Your task to perform on an android device: Search for seafood restaurants on Google Maps Image 0: 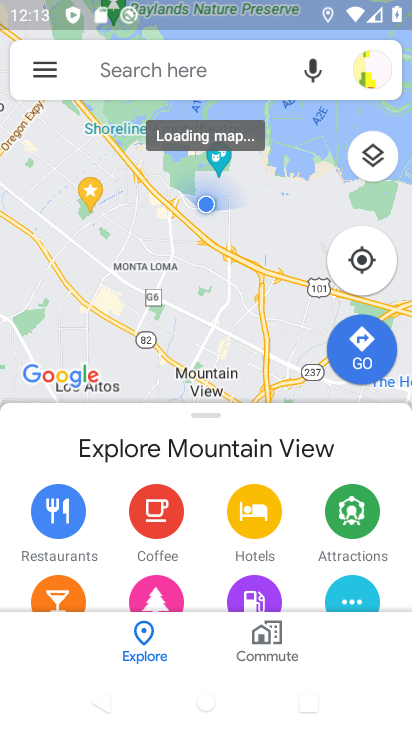
Step 0: press home button
Your task to perform on an android device: Search for seafood restaurants on Google Maps Image 1: 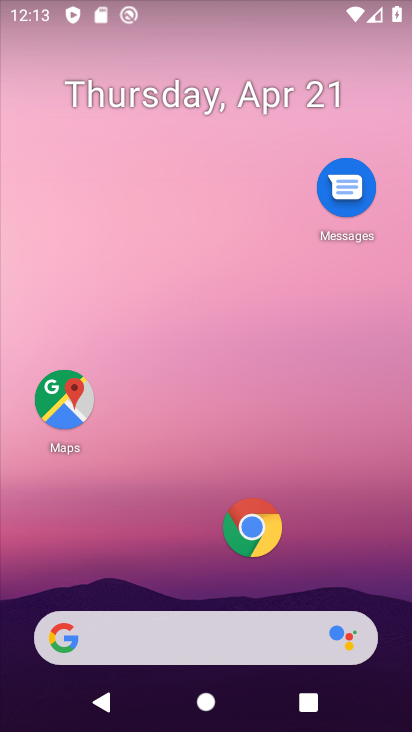
Step 1: click (83, 395)
Your task to perform on an android device: Search for seafood restaurants on Google Maps Image 2: 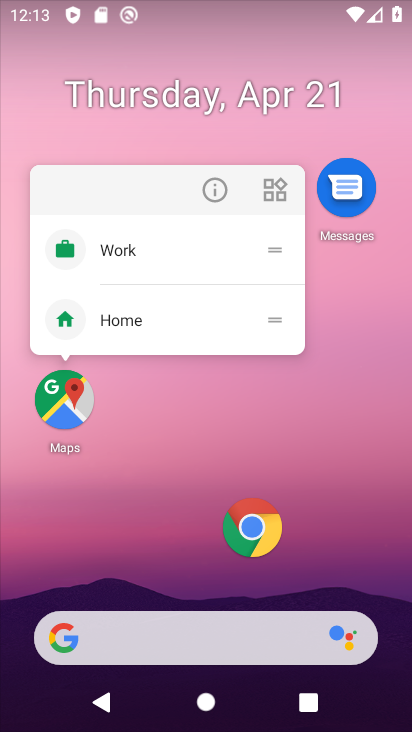
Step 2: click (64, 405)
Your task to perform on an android device: Search for seafood restaurants on Google Maps Image 3: 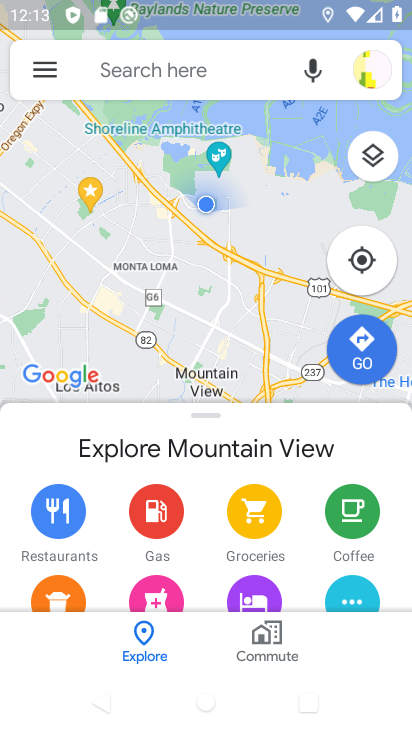
Step 3: click (117, 59)
Your task to perform on an android device: Search for seafood restaurants on Google Maps Image 4: 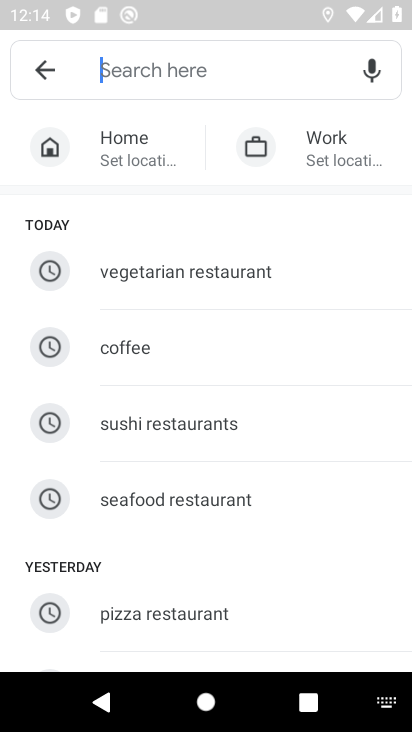
Step 4: type "seafood restaurants"
Your task to perform on an android device: Search for seafood restaurants on Google Maps Image 5: 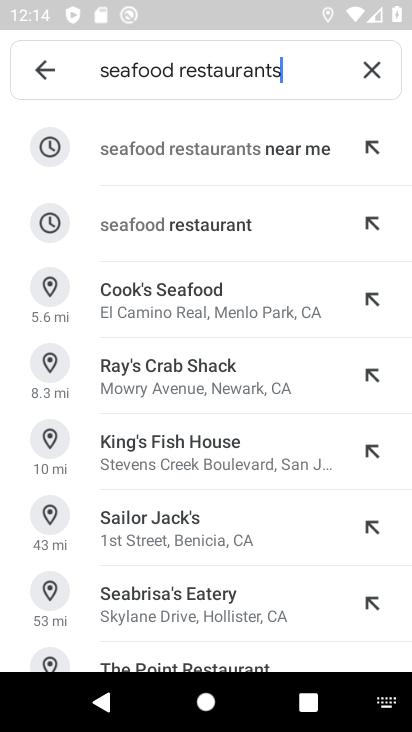
Step 5: click (222, 208)
Your task to perform on an android device: Search for seafood restaurants on Google Maps Image 6: 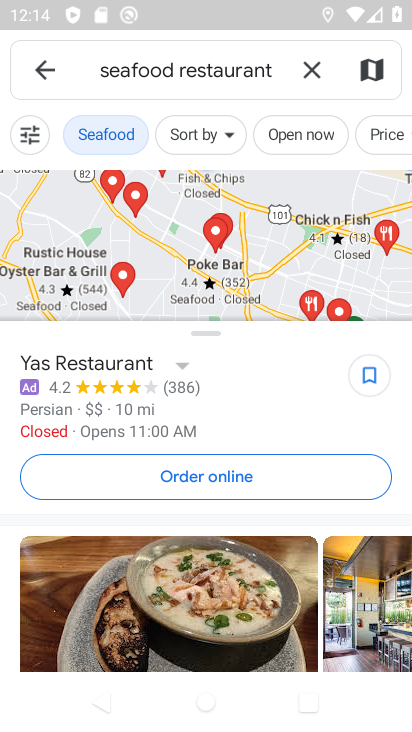
Step 6: task complete